Your task to perform on an android device: see tabs open on other devices in the chrome app Image 0: 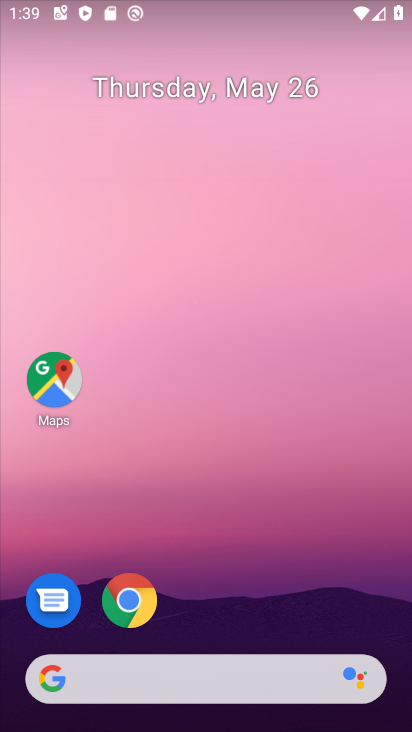
Step 0: click (128, 599)
Your task to perform on an android device: see tabs open on other devices in the chrome app Image 1: 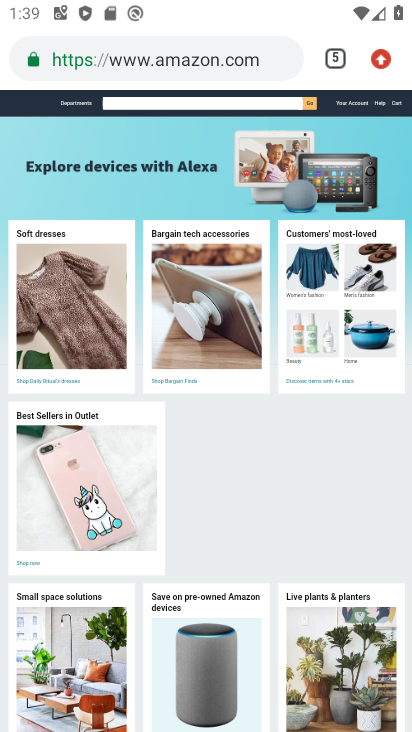
Step 1: click (333, 50)
Your task to perform on an android device: see tabs open on other devices in the chrome app Image 2: 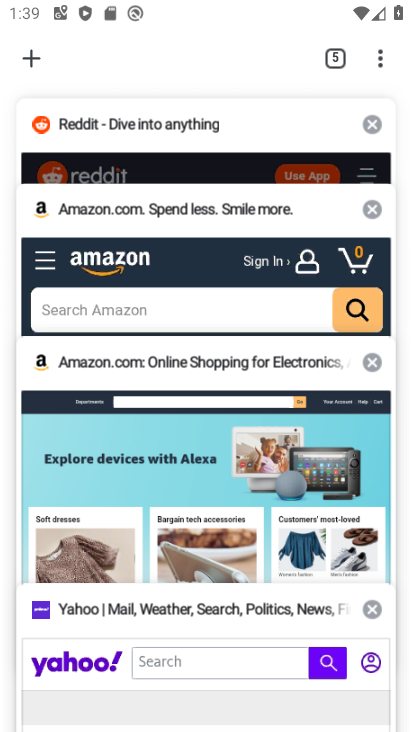
Step 2: click (70, 146)
Your task to perform on an android device: see tabs open on other devices in the chrome app Image 3: 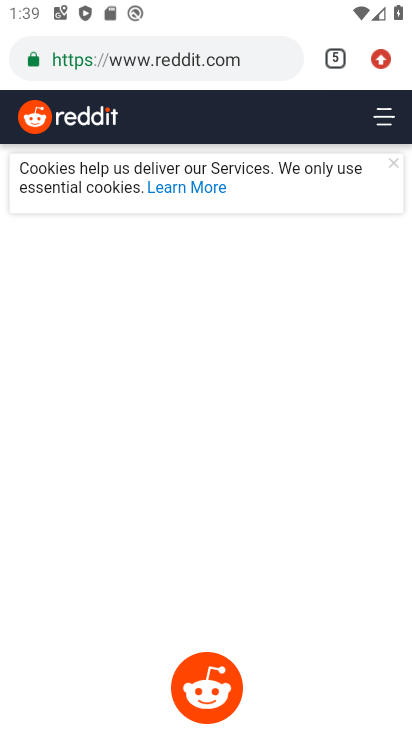
Step 3: task complete